Your task to perform on an android device: What's on my calendar tomorrow? Image 0: 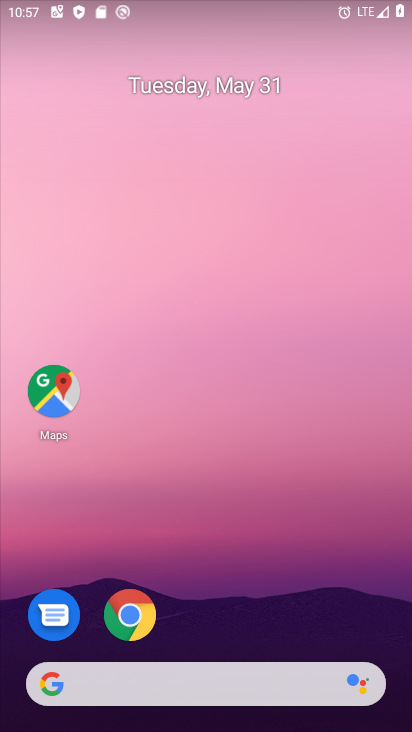
Step 0: drag from (321, 553) to (304, 24)
Your task to perform on an android device: What's on my calendar tomorrow? Image 1: 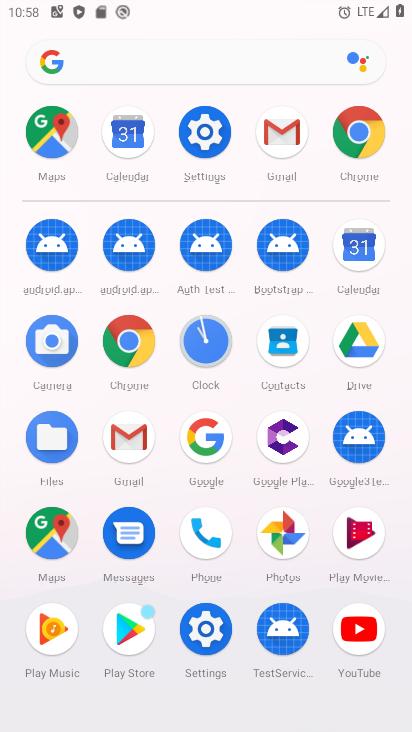
Step 1: click (372, 252)
Your task to perform on an android device: What's on my calendar tomorrow? Image 2: 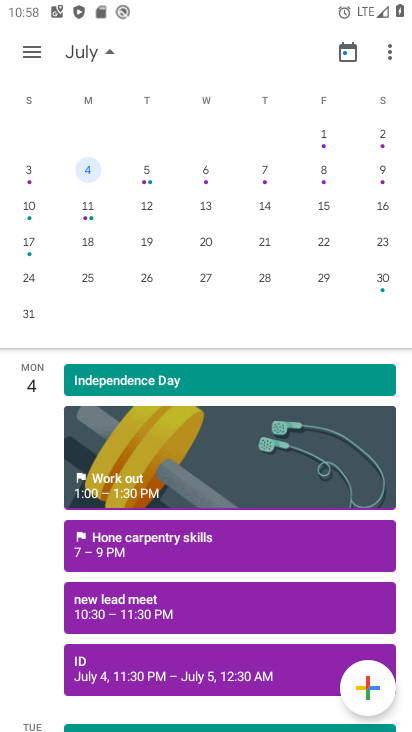
Step 2: click (148, 181)
Your task to perform on an android device: What's on my calendar tomorrow? Image 3: 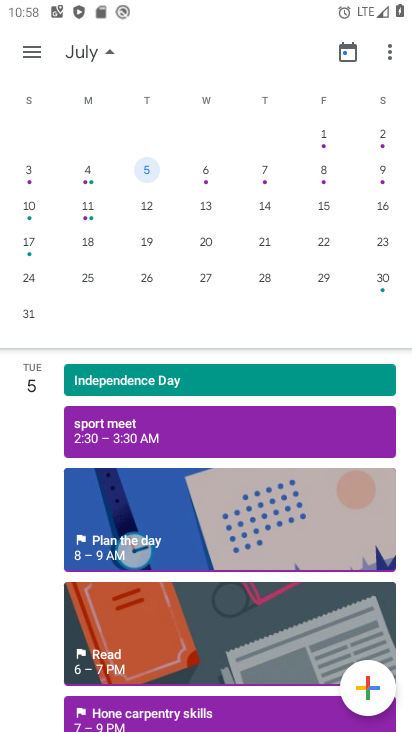
Step 3: task complete